Your task to perform on an android device: Go to location settings Image 0: 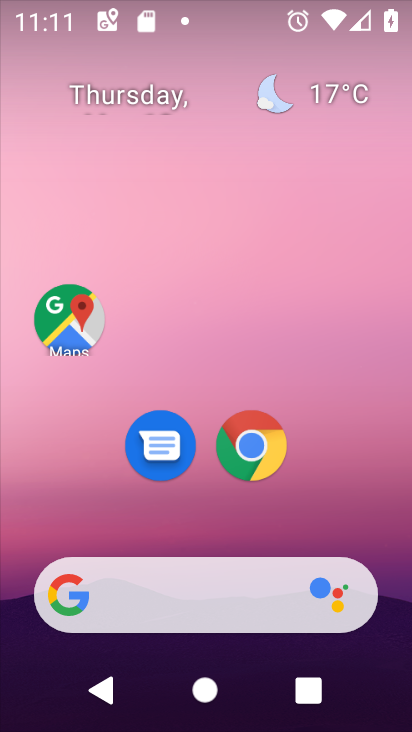
Step 0: drag from (231, 521) to (221, 208)
Your task to perform on an android device: Go to location settings Image 1: 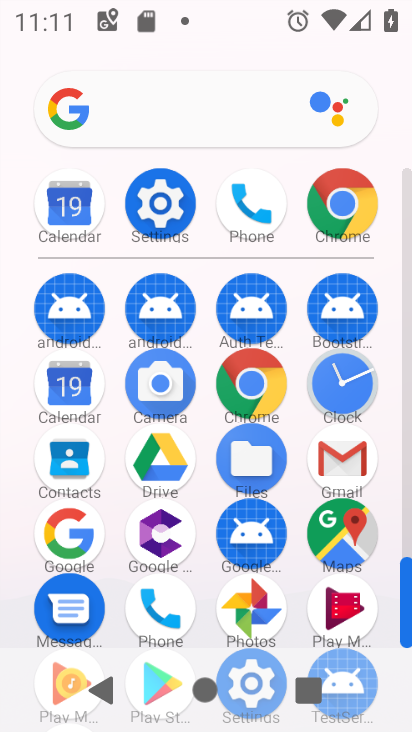
Step 1: click (151, 190)
Your task to perform on an android device: Go to location settings Image 2: 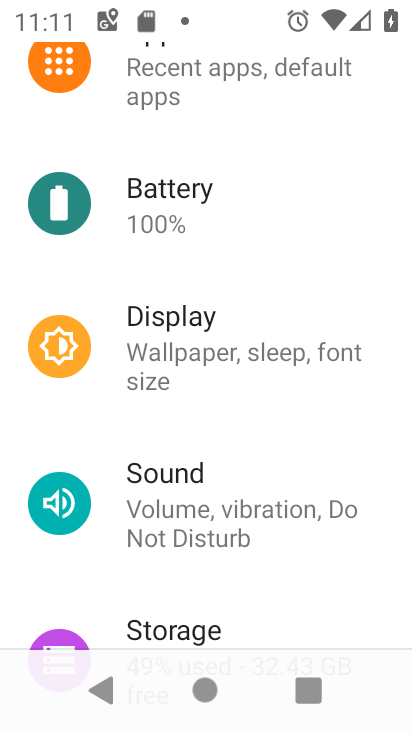
Step 2: drag from (200, 577) to (166, 143)
Your task to perform on an android device: Go to location settings Image 3: 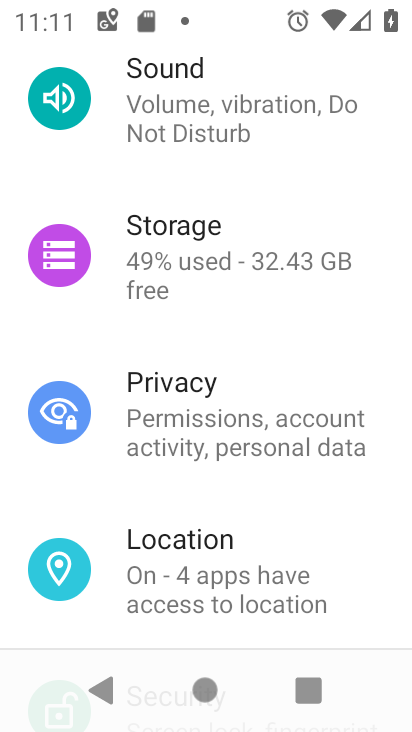
Step 3: click (175, 576)
Your task to perform on an android device: Go to location settings Image 4: 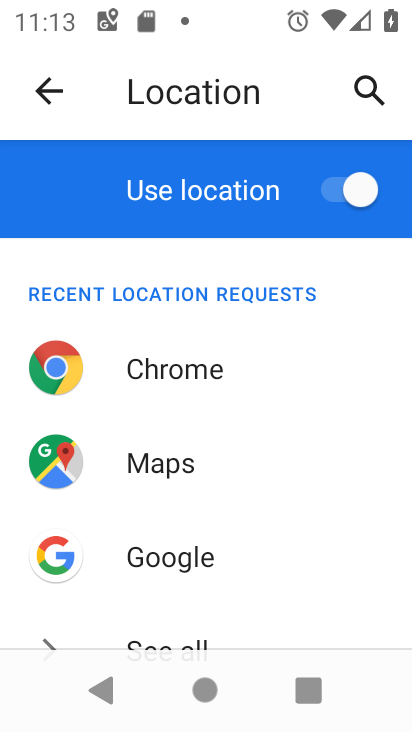
Step 4: task complete